Your task to perform on an android device: toggle pop-ups in chrome Image 0: 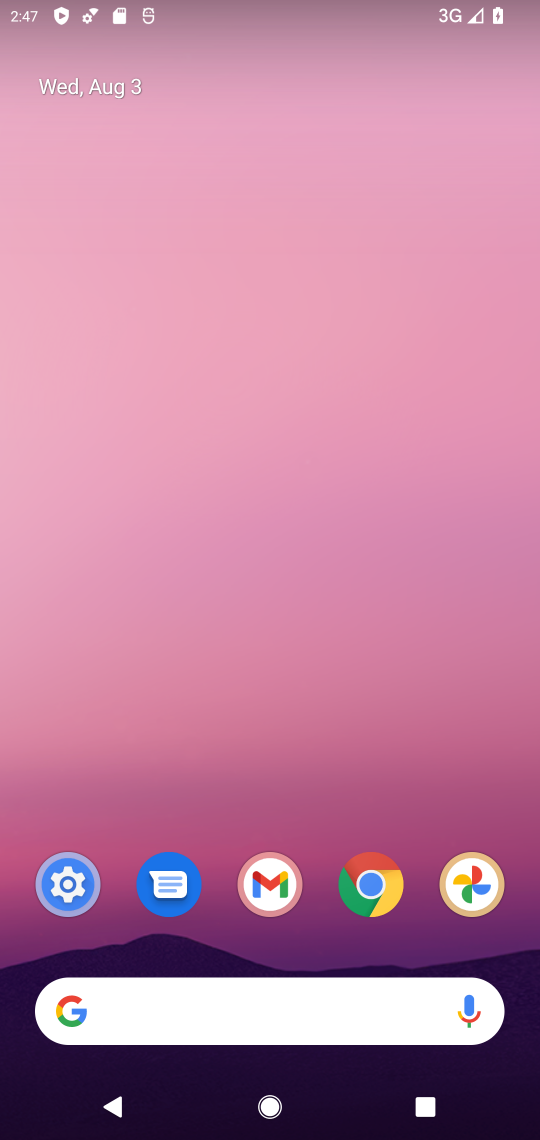
Step 0: click (369, 870)
Your task to perform on an android device: toggle pop-ups in chrome Image 1: 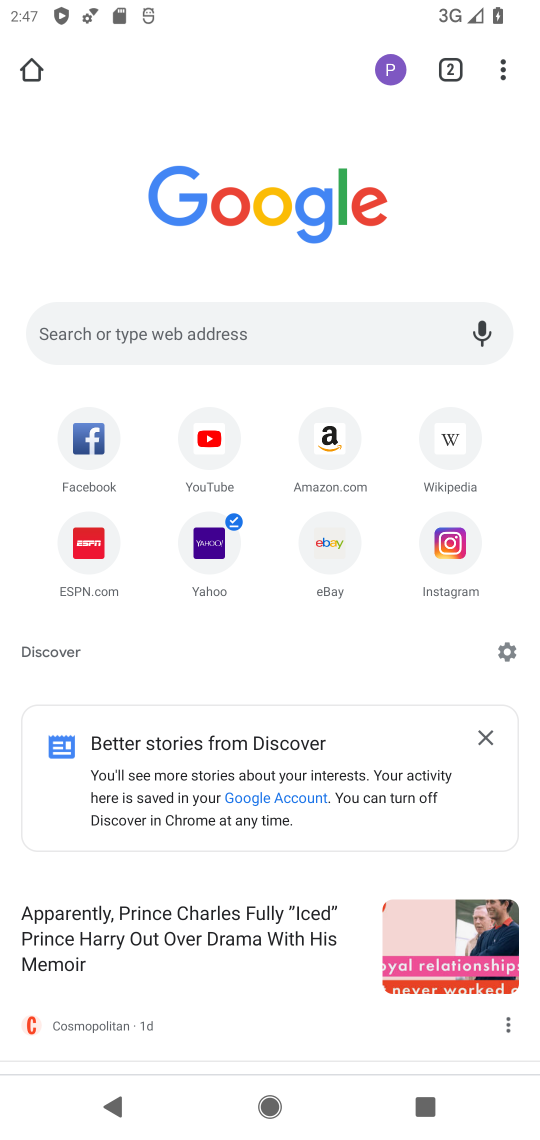
Step 1: click (490, 65)
Your task to perform on an android device: toggle pop-ups in chrome Image 2: 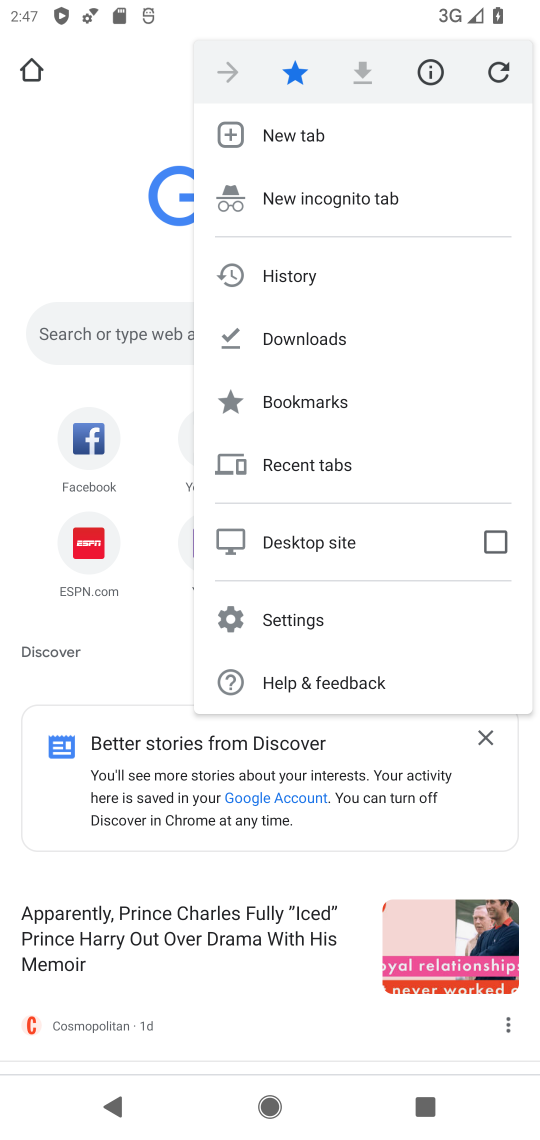
Step 2: click (279, 608)
Your task to perform on an android device: toggle pop-ups in chrome Image 3: 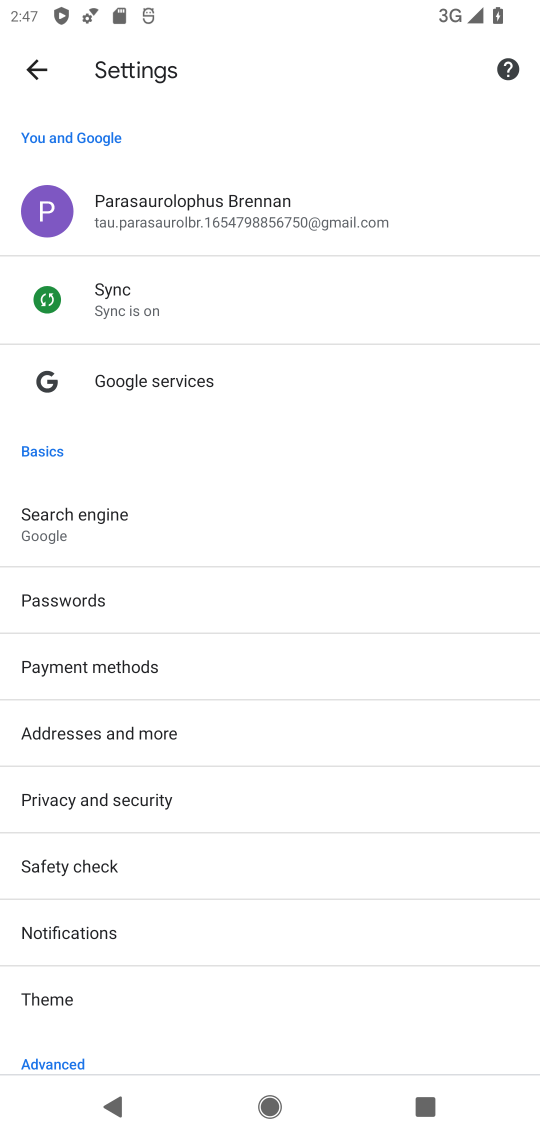
Step 3: drag from (220, 953) to (219, 508)
Your task to perform on an android device: toggle pop-ups in chrome Image 4: 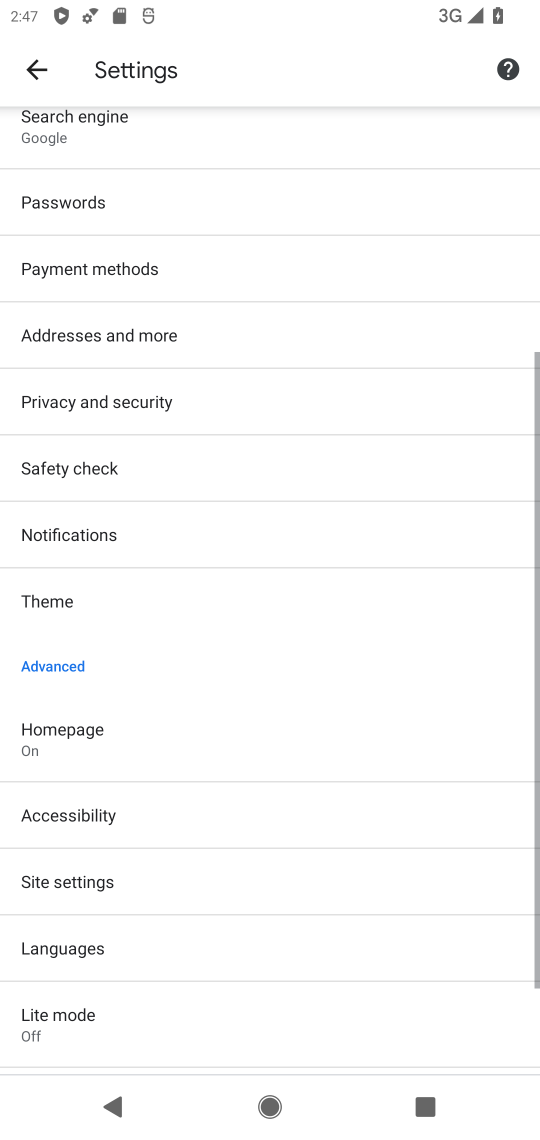
Step 4: click (219, 508)
Your task to perform on an android device: toggle pop-ups in chrome Image 5: 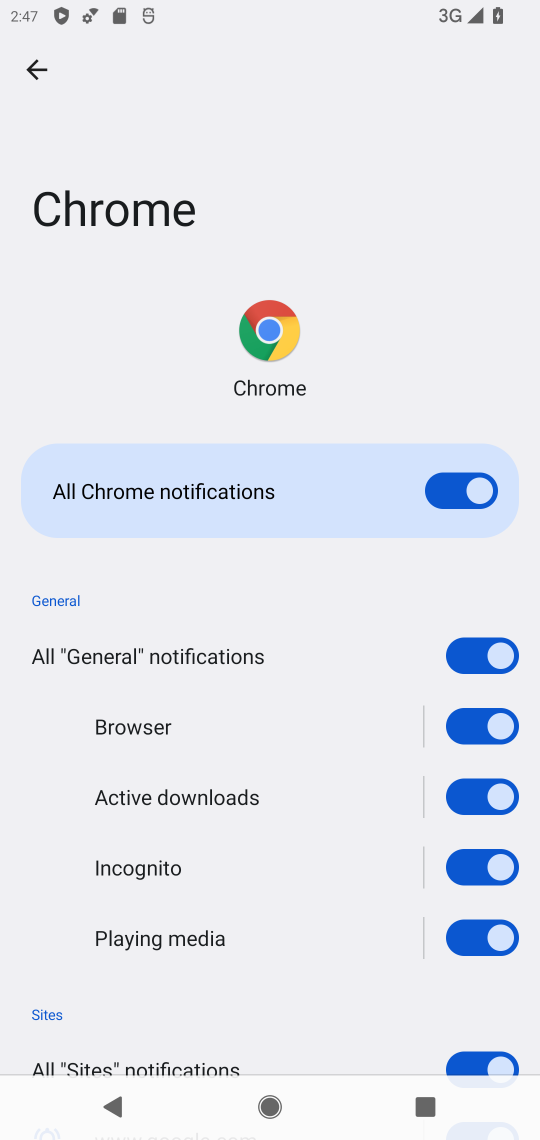
Step 5: click (36, 87)
Your task to perform on an android device: toggle pop-ups in chrome Image 6: 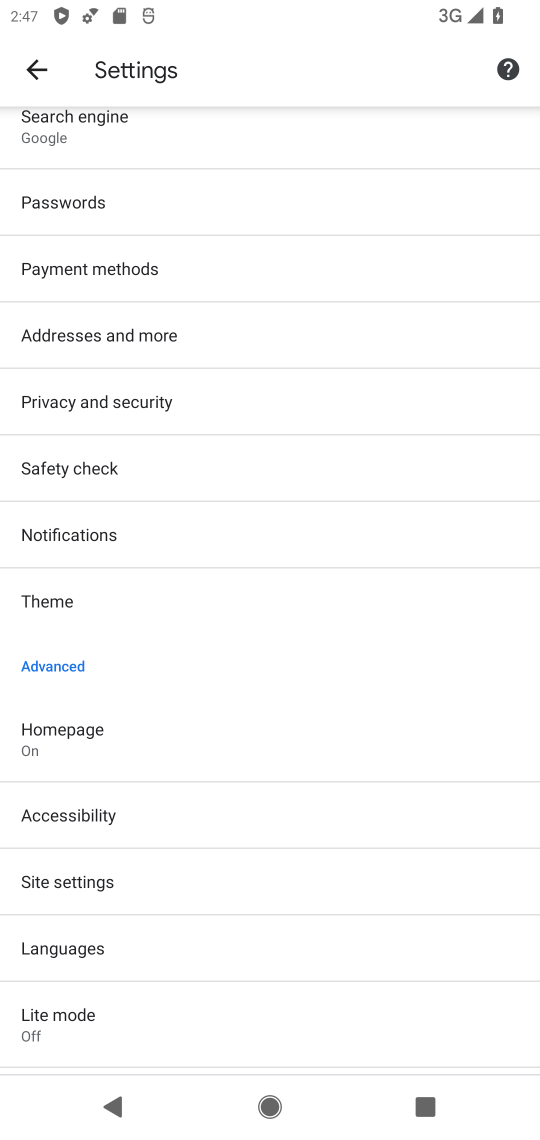
Step 6: click (155, 871)
Your task to perform on an android device: toggle pop-ups in chrome Image 7: 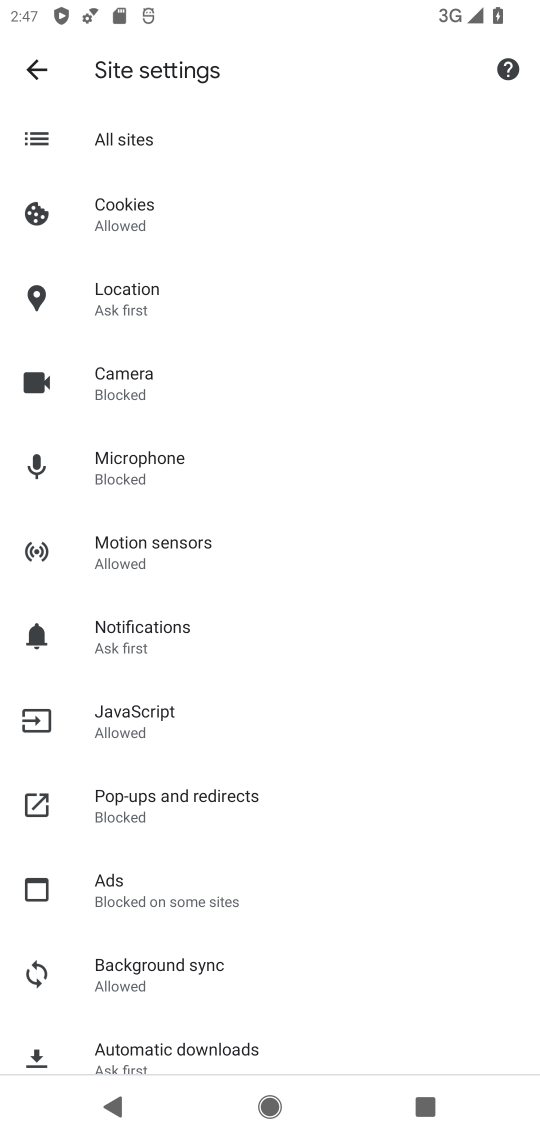
Step 7: click (176, 796)
Your task to perform on an android device: toggle pop-ups in chrome Image 8: 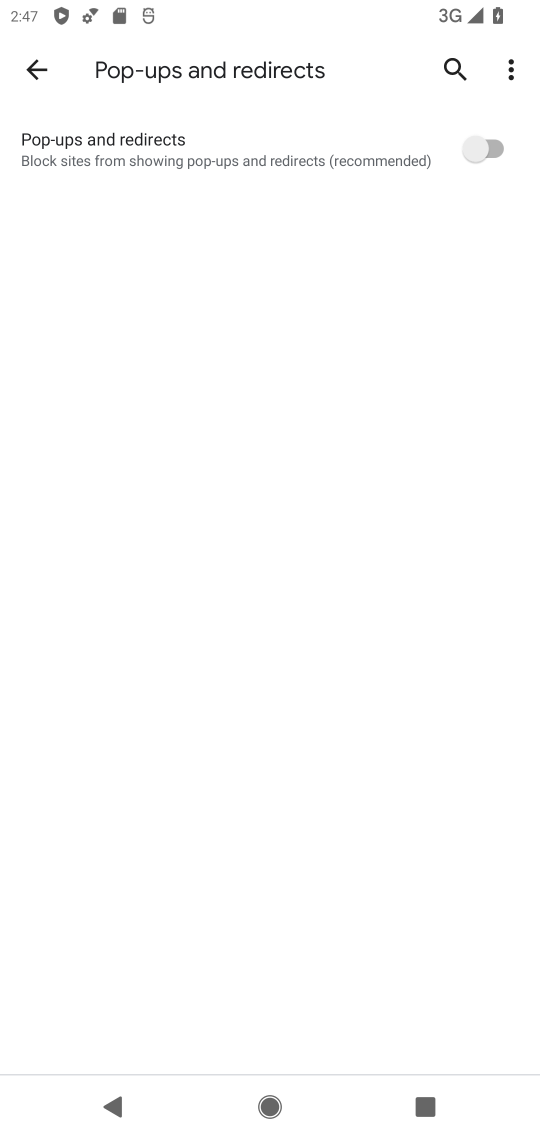
Step 8: click (403, 158)
Your task to perform on an android device: toggle pop-ups in chrome Image 9: 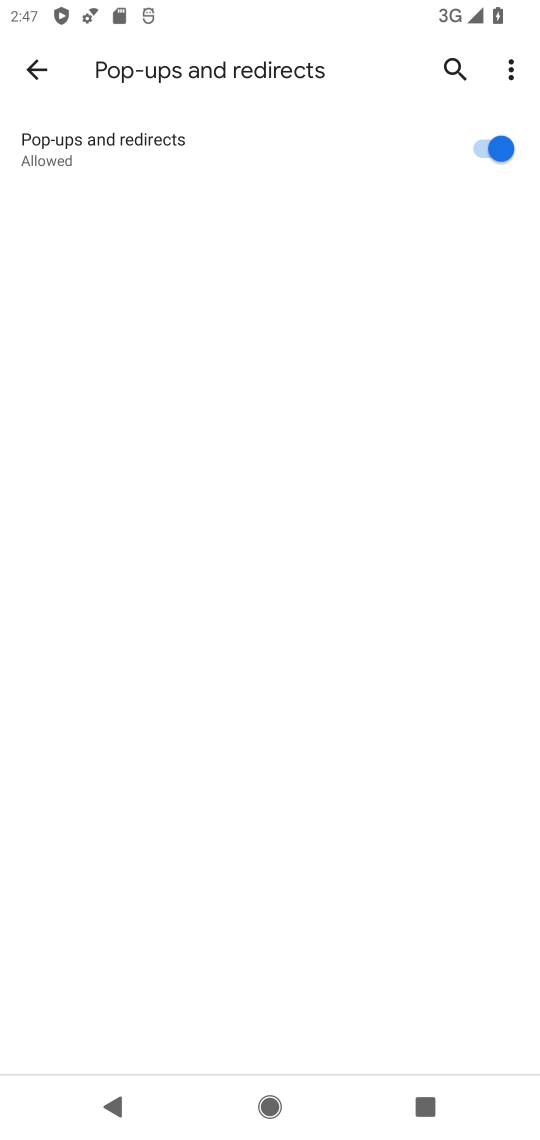
Step 9: task complete